Your task to perform on an android device: move a message to another label in the gmail app Image 0: 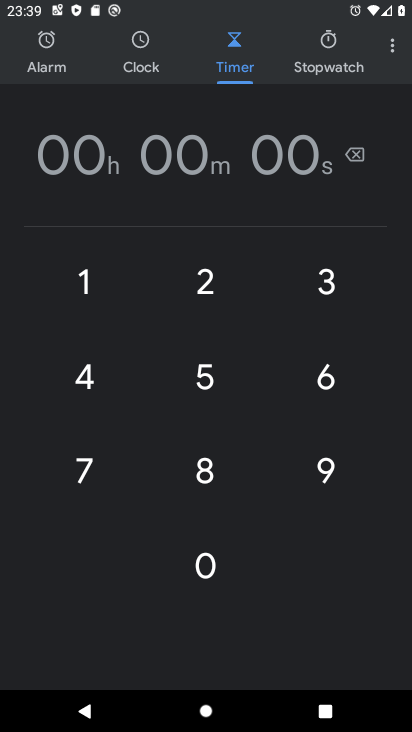
Step 0: press home button
Your task to perform on an android device: move a message to another label in the gmail app Image 1: 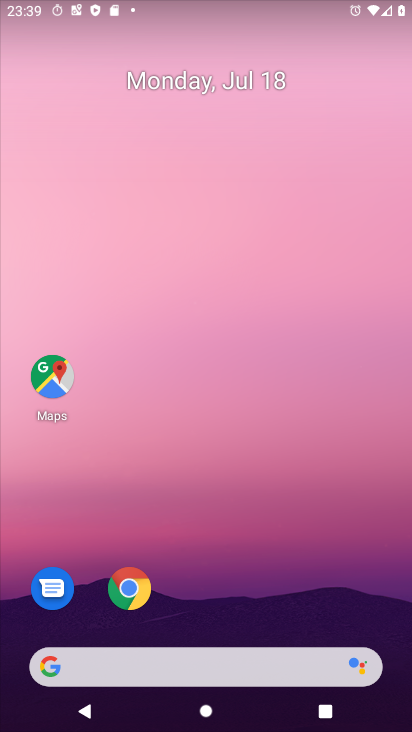
Step 1: drag from (170, 678) to (237, 262)
Your task to perform on an android device: move a message to another label in the gmail app Image 2: 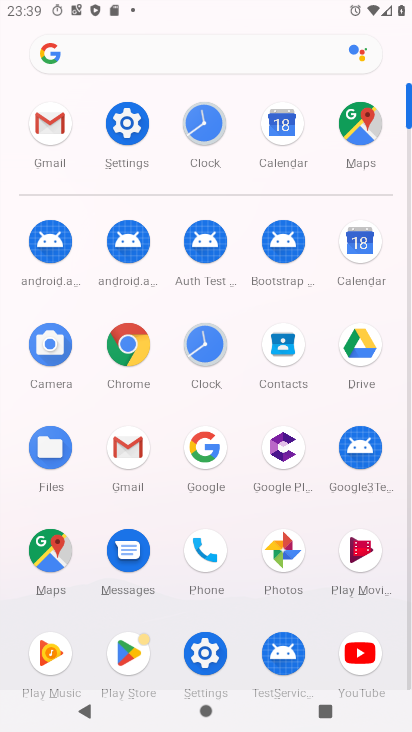
Step 2: click (124, 456)
Your task to perform on an android device: move a message to another label in the gmail app Image 3: 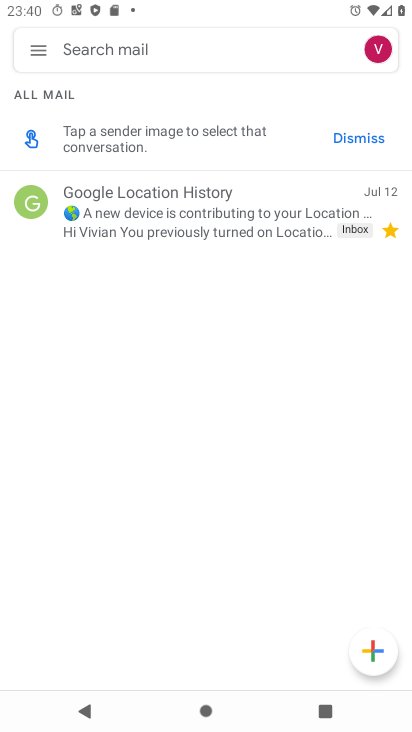
Step 3: click (92, 201)
Your task to perform on an android device: move a message to another label in the gmail app Image 4: 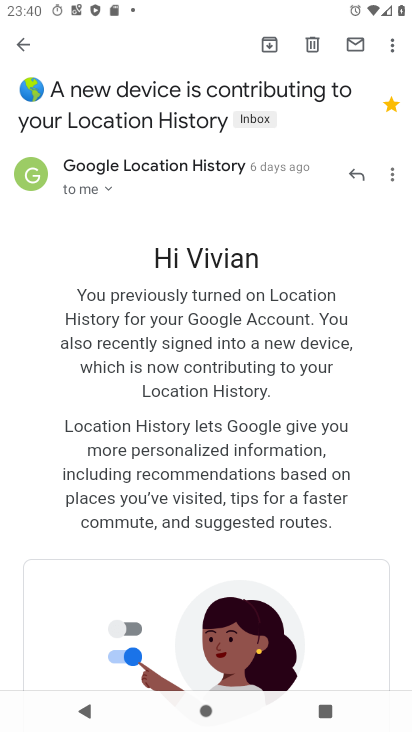
Step 4: click (260, 115)
Your task to perform on an android device: move a message to another label in the gmail app Image 5: 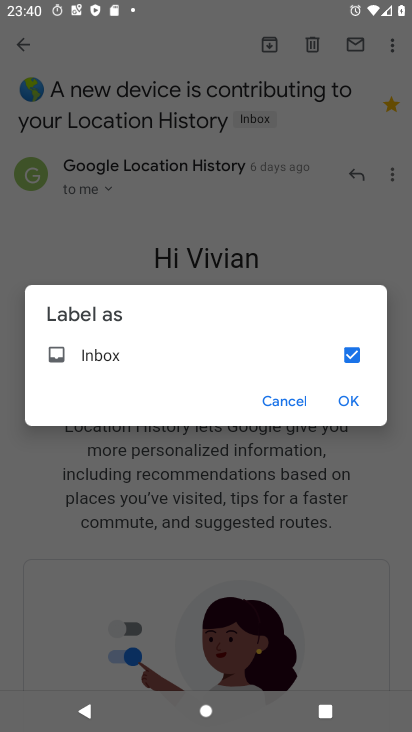
Step 5: click (342, 351)
Your task to perform on an android device: move a message to another label in the gmail app Image 6: 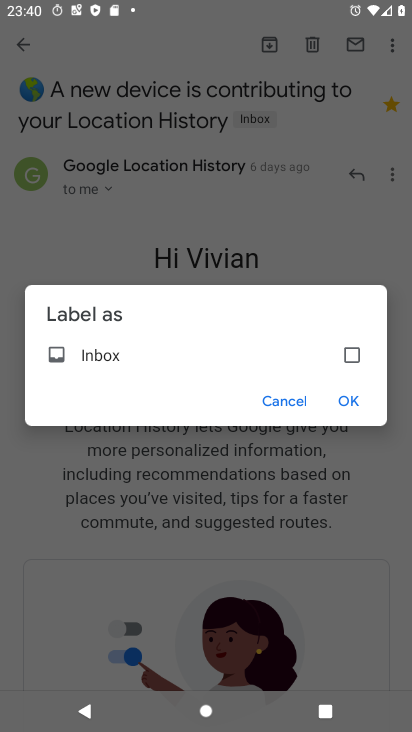
Step 6: click (351, 400)
Your task to perform on an android device: move a message to another label in the gmail app Image 7: 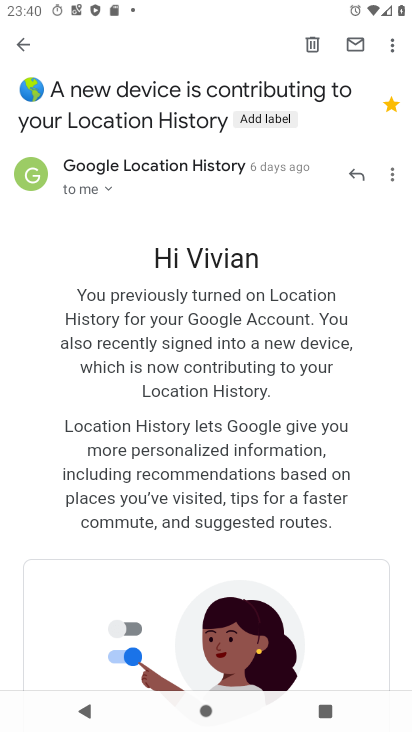
Step 7: task complete